Your task to perform on an android device: Turn on the flashlight Image 0: 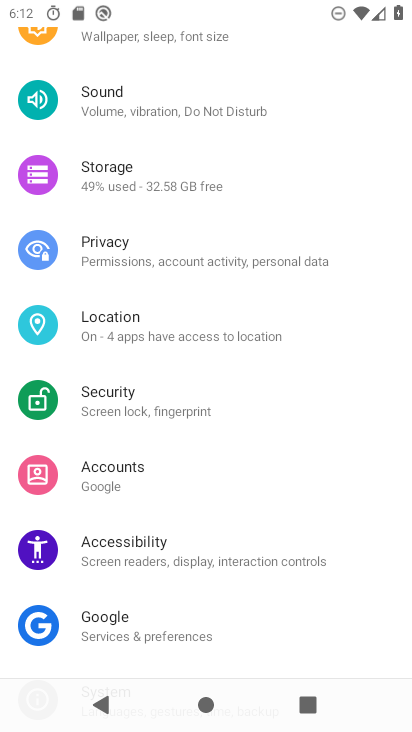
Step 0: drag from (178, 136) to (143, 447)
Your task to perform on an android device: Turn on the flashlight Image 1: 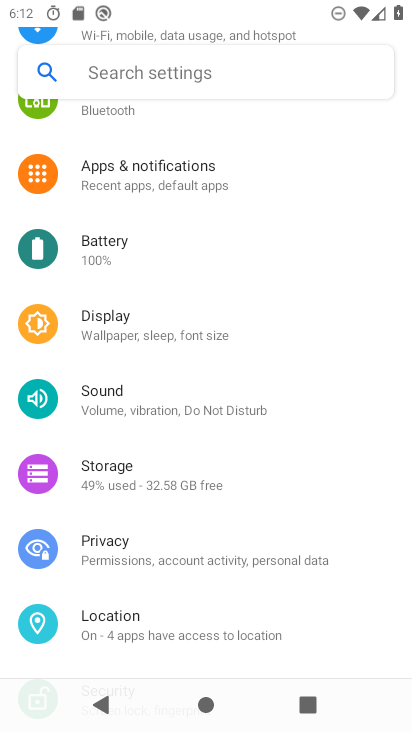
Step 1: click (161, 173)
Your task to perform on an android device: Turn on the flashlight Image 2: 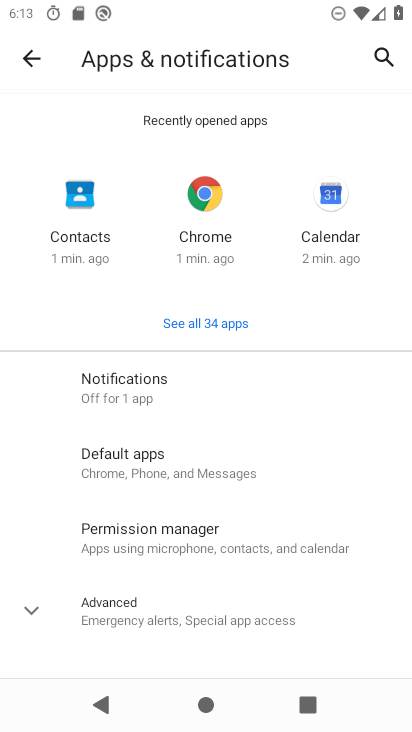
Step 2: task complete